Your task to perform on an android device: turn on sleep mode Image 0: 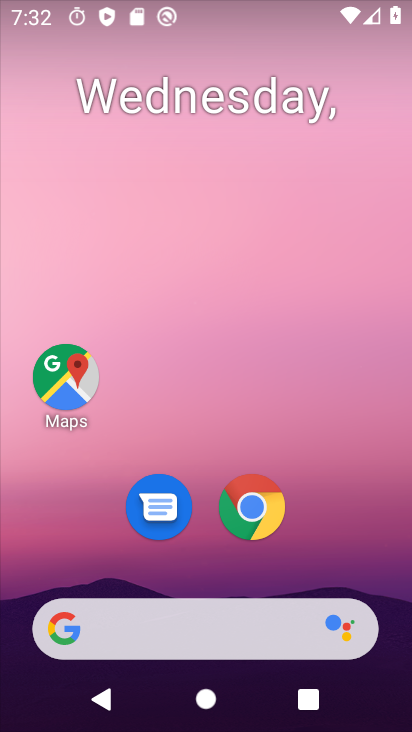
Step 0: drag from (261, 661) to (311, 70)
Your task to perform on an android device: turn on sleep mode Image 1: 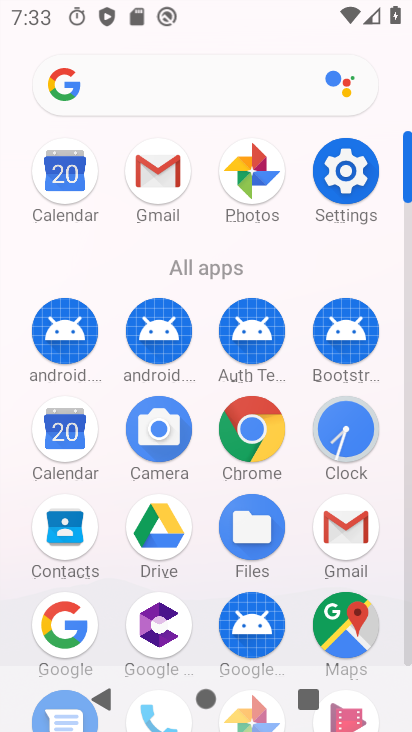
Step 1: click (355, 184)
Your task to perform on an android device: turn on sleep mode Image 2: 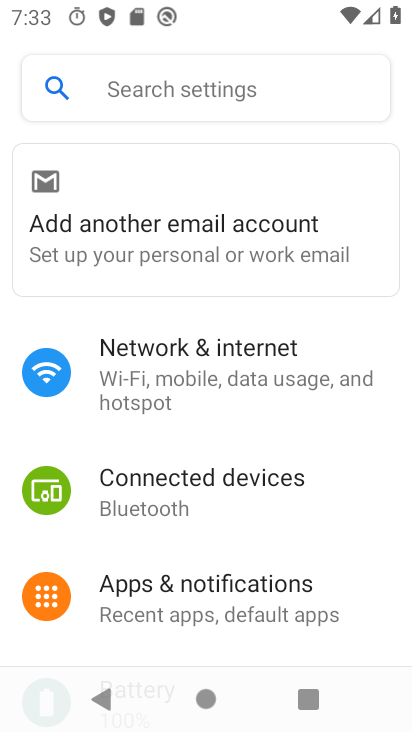
Step 2: click (145, 96)
Your task to perform on an android device: turn on sleep mode Image 3: 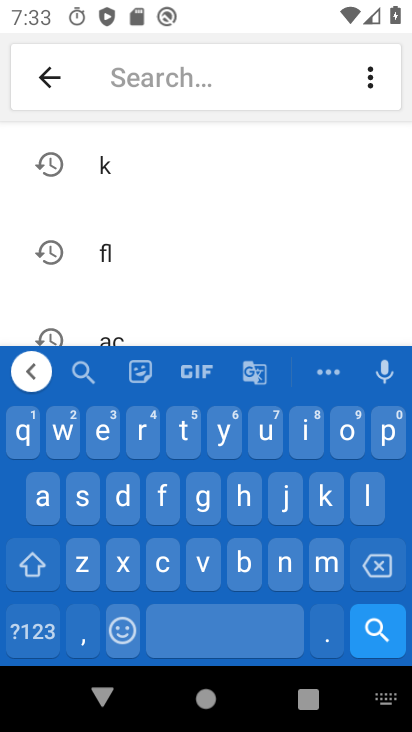
Step 3: click (84, 506)
Your task to perform on an android device: turn on sleep mode Image 4: 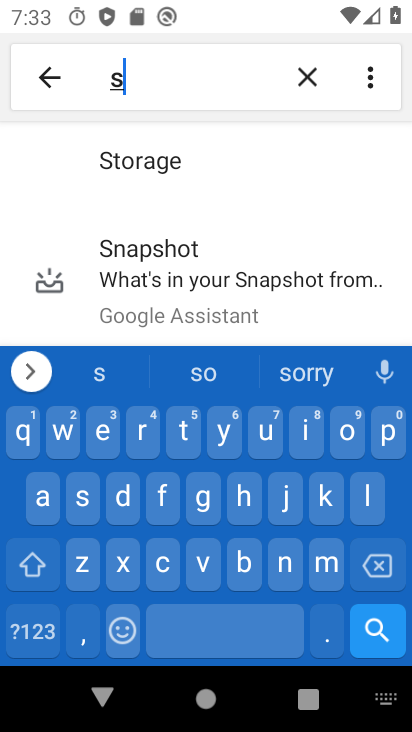
Step 4: click (368, 493)
Your task to perform on an android device: turn on sleep mode Image 5: 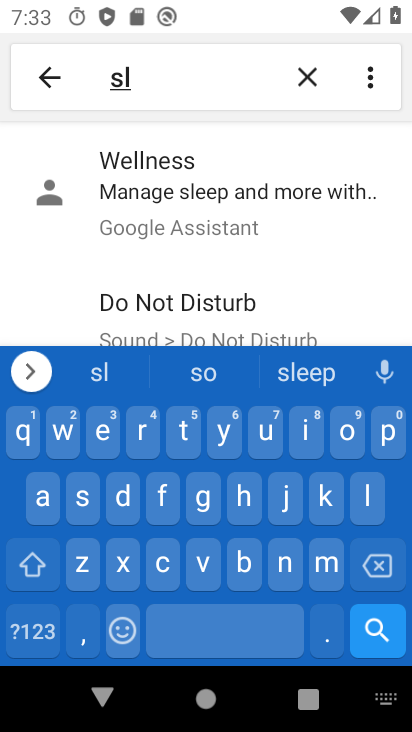
Step 5: click (145, 314)
Your task to perform on an android device: turn on sleep mode Image 6: 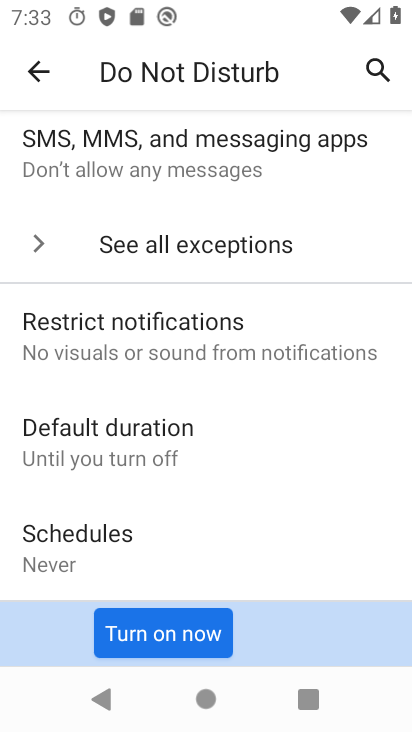
Step 6: click (166, 638)
Your task to perform on an android device: turn on sleep mode Image 7: 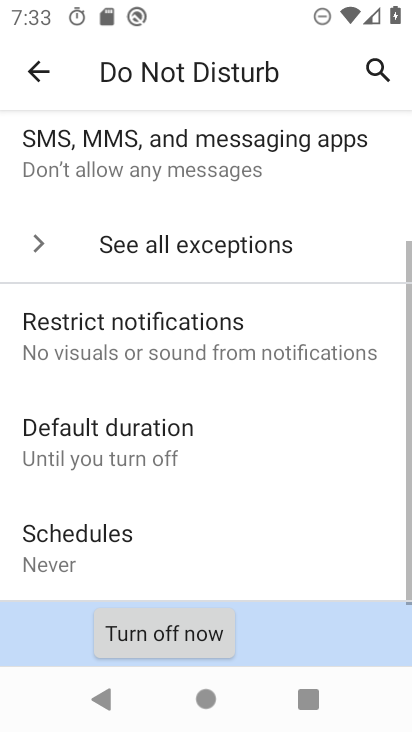
Step 7: task complete